Your task to perform on an android device: Search for seafood restaurants on Google Maps Image 0: 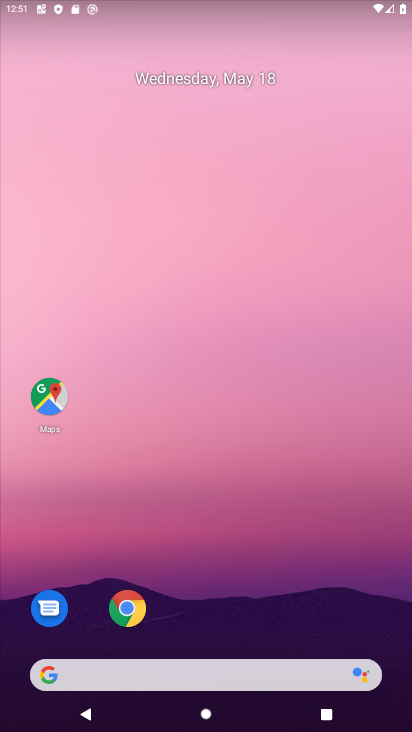
Step 0: click (50, 393)
Your task to perform on an android device: Search for seafood restaurants on Google Maps Image 1: 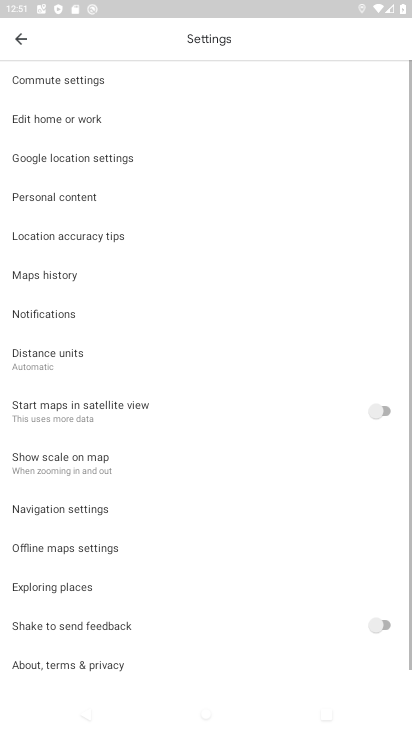
Step 1: click (21, 39)
Your task to perform on an android device: Search for seafood restaurants on Google Maps Image 2: 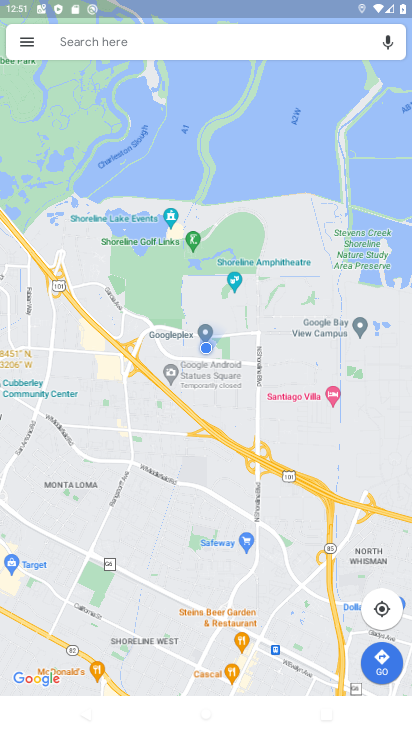
Step 2: click (141, 42)
Your task to perform on an android device: Search for seafood restaurants on Google Maps Image 3: 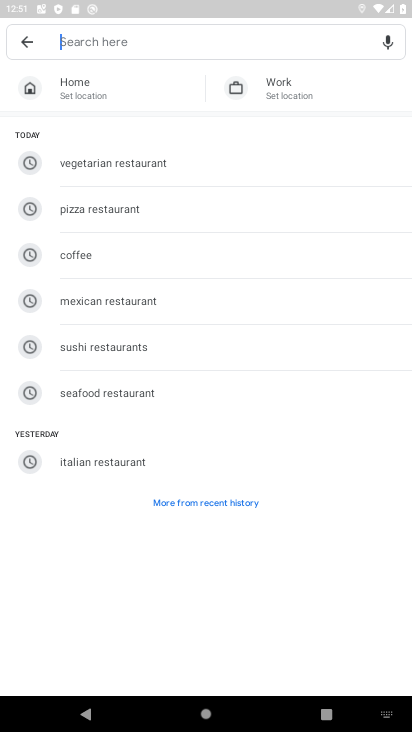
Step 3: click (111, 399)
Your task to perform on an android device: Search for seafood restaurants on Google Maps Image 4: 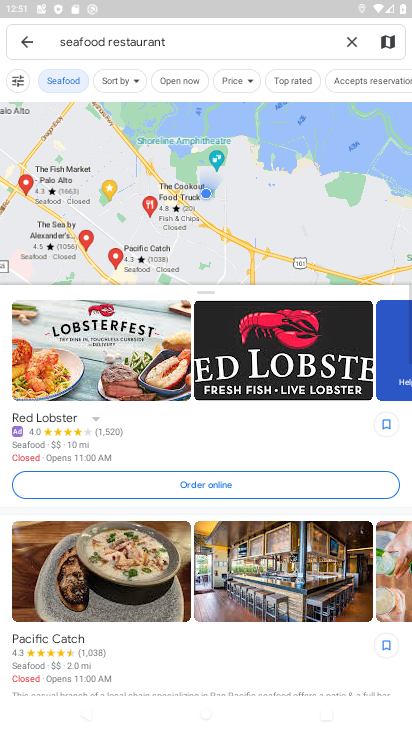
Step 4: task complete